Your task to perform on an android device: read, delete, or share a saved page in the chrome app Image 0: 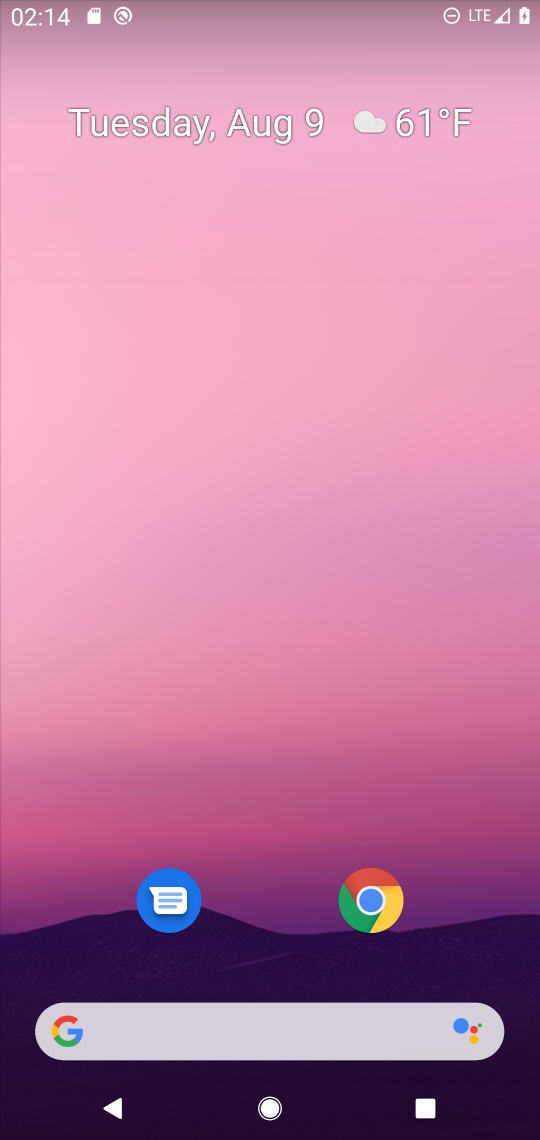
Step 0: press home button
Your task to perform on an android device: read, delete, or share a saved page in the chrome app Image 1: 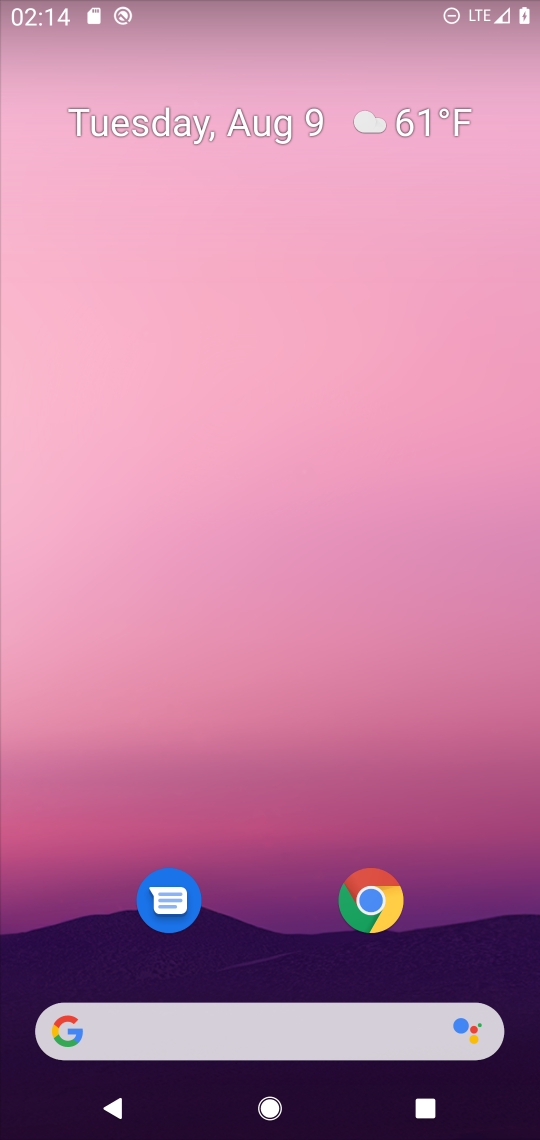
Step 1: drag from (480, 952) to (464, 73)
Your task to perform on an android device: read, delete, or share a saved page in the chrome app Image 2: 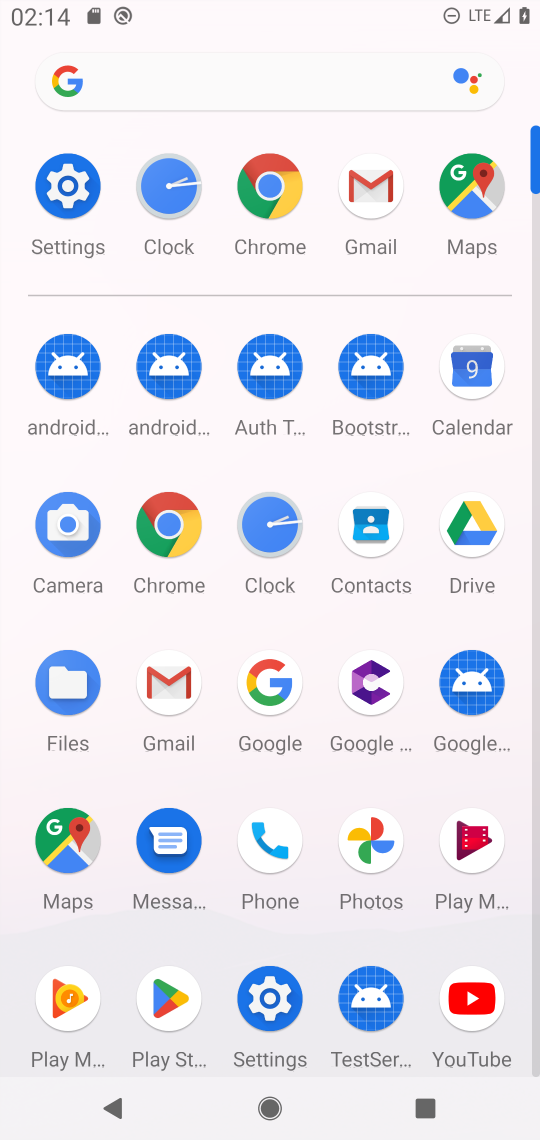
Step 2: click (160, 534)
Your task to perform on an android device: read, delete, or share a saved page in the chrome app Image 3: 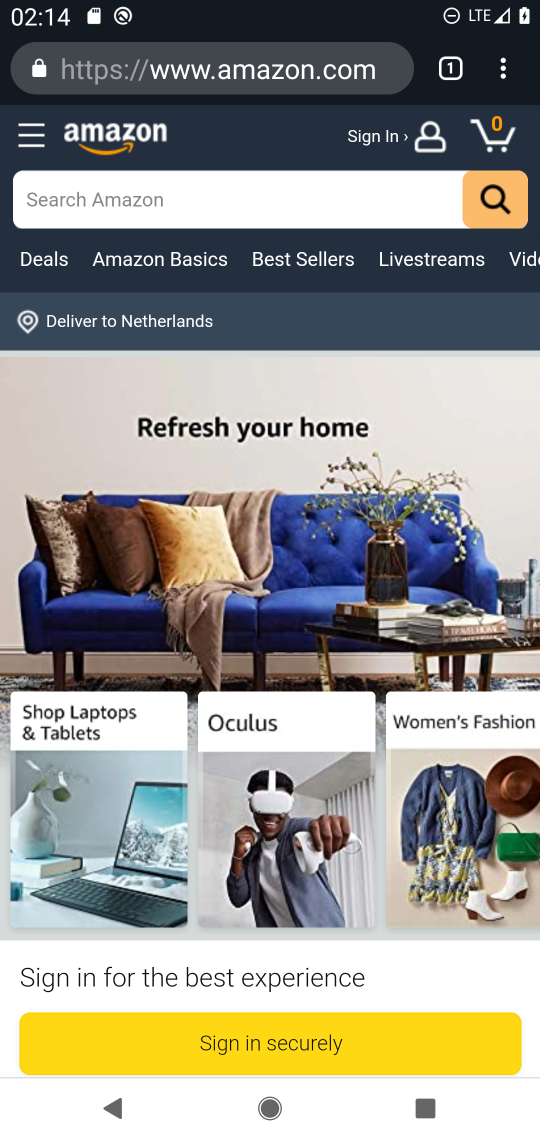
Step 3: click (503, 71)
Your task to perform on an android device: read, delete, or share a saved page in the chrome app Image 4: 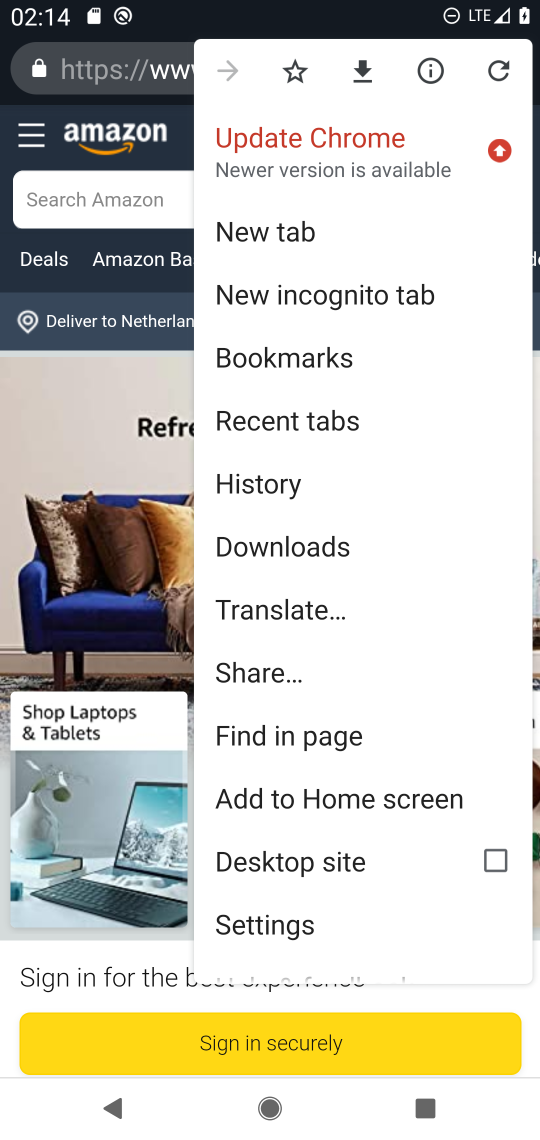
Step 4: click (329, 548)
Your task to perform on an android device: read, delete, or share a saved page in the chrome app Image 5: 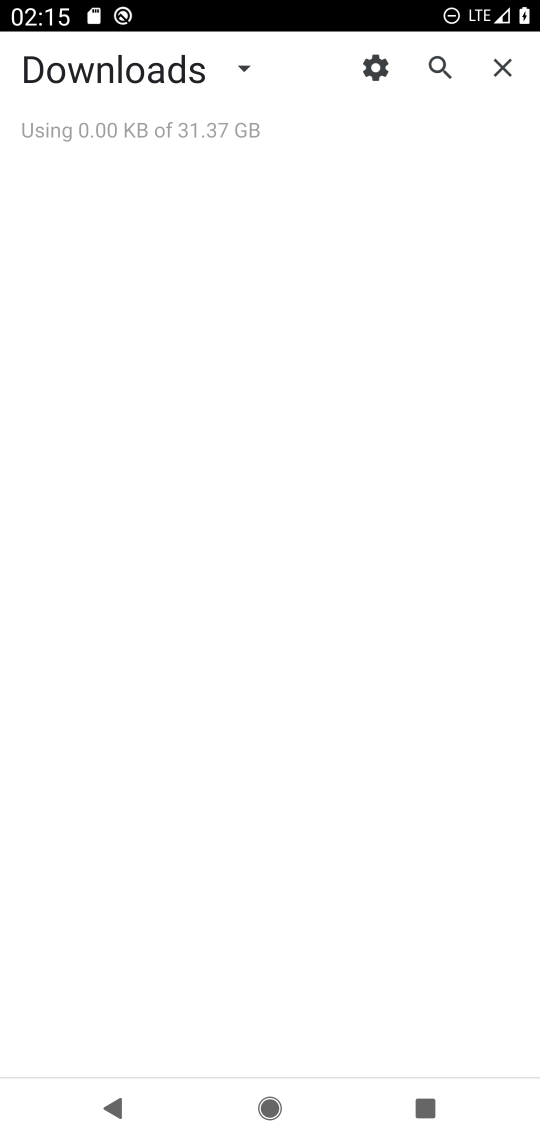
Step 5: task complete